Your task to perform on an android device: Show me productivity apps on the Play Store Image 0: 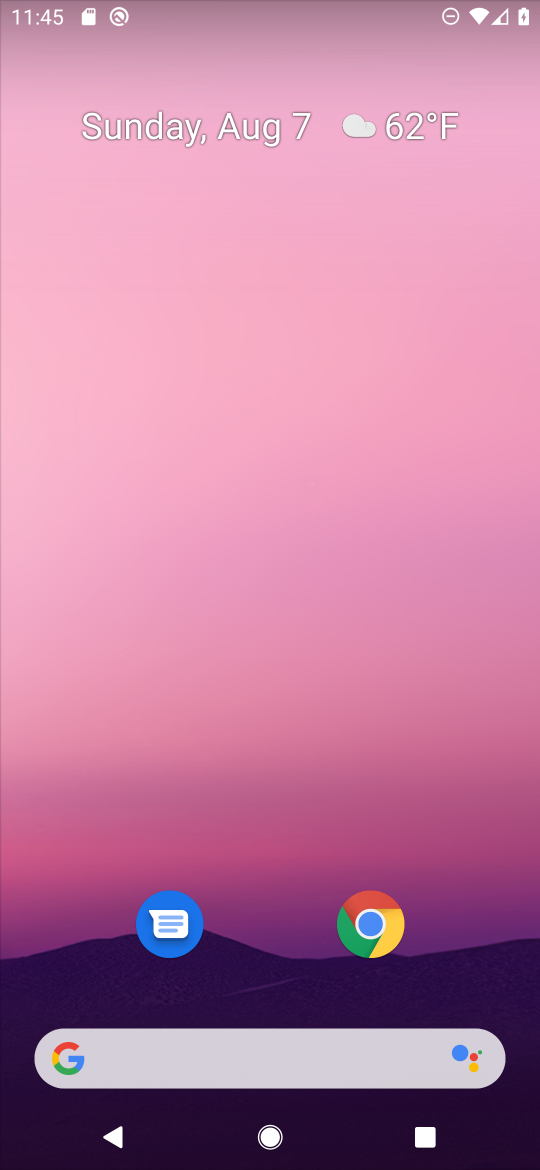
Step 0: drag from (272, 1028) to (272, 356)
Your task to perform on an android device: Show me productivity apps on the Play Store Image 1: 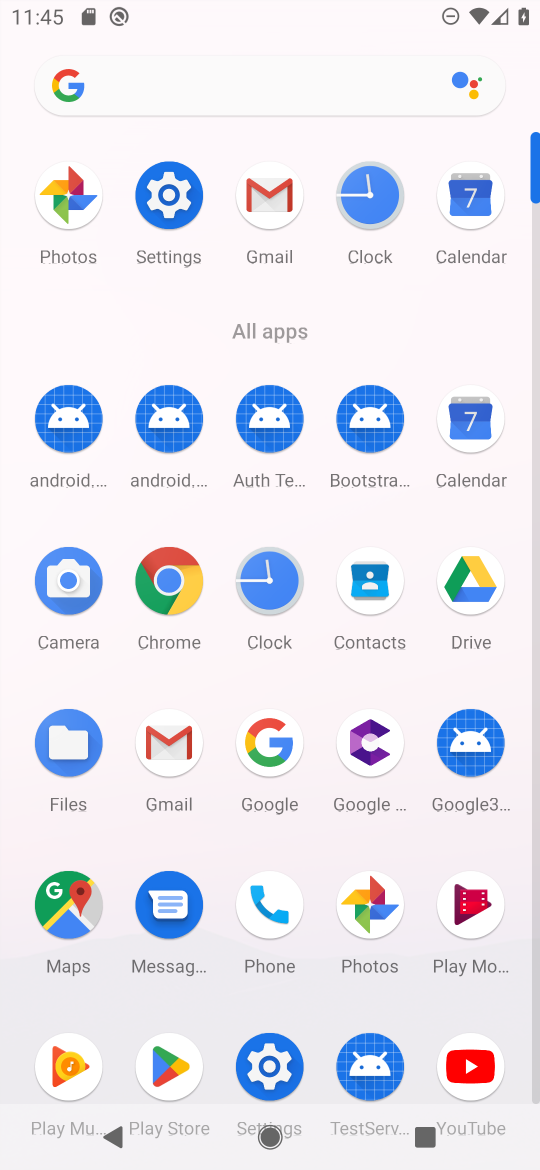
Step 1: click (168, 1071)
Your task to perform on an android device: Show me productivity apps on the Play Store Image 2: 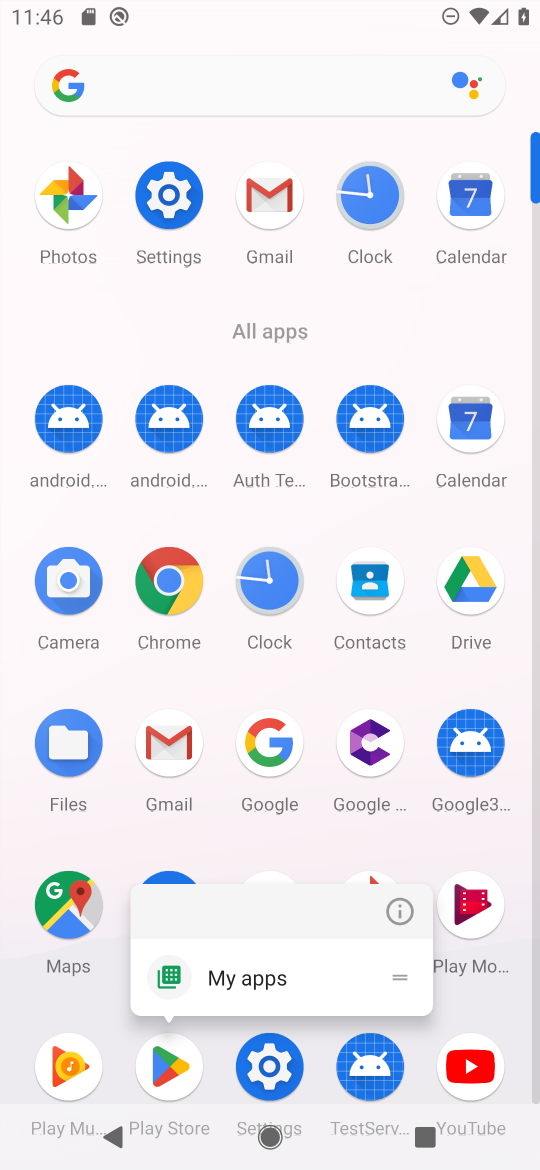
Step 2: click (171, 1078)
Your task to perform on an android device: Show me productivity apps on the Play Store Image 3: 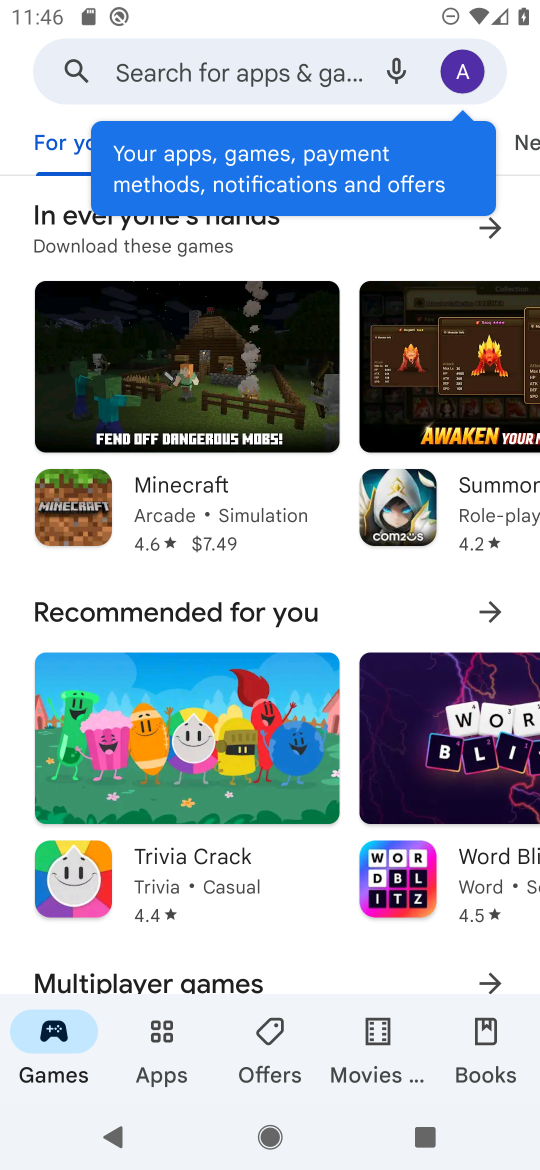
Step 3: click (157, 1031)
Your task to perform on an android device: Show me productivity apps on the Play Store Image 4: 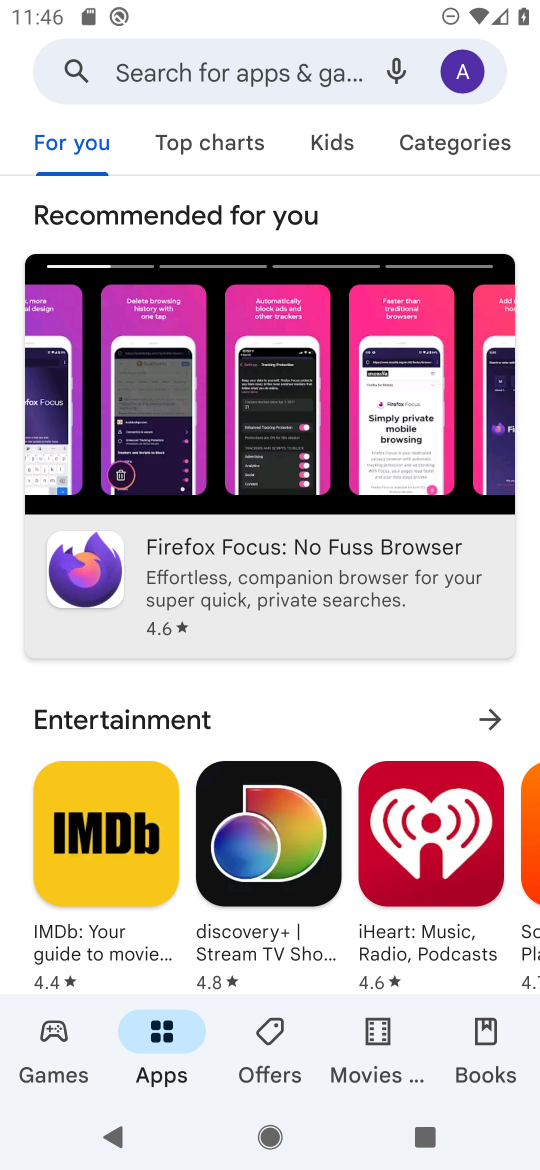
Step 4: task complete